Your task to perform on an android device: Show the shopping cart on bestbuy.com. Add razer blackwidow to the cart on bestbuy.com Image 0: 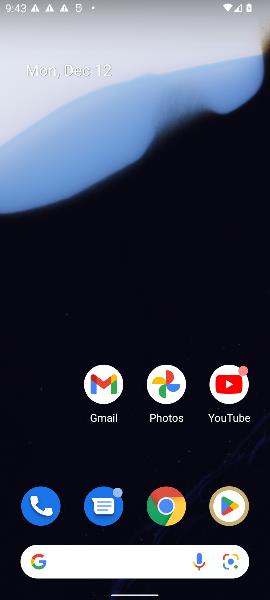
Step 0: click (120, 568)
Your task to perform on an android device: Show the shopping cart on bestbuy.com. Add razer blackwidow to the cart on bestbuy.com Image 1: 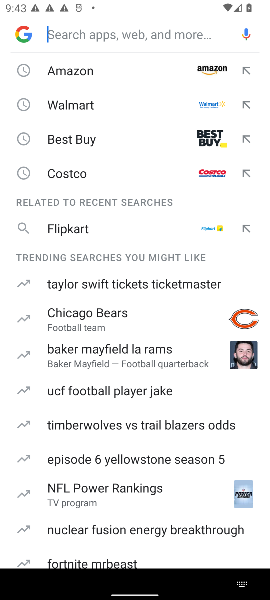
Step 1: click (86, 138)
Your task to perform on an android device: Show the shopping cart on bestbuy.com. Add razer blackwidow to the cart on bestbuy.com Image 2: 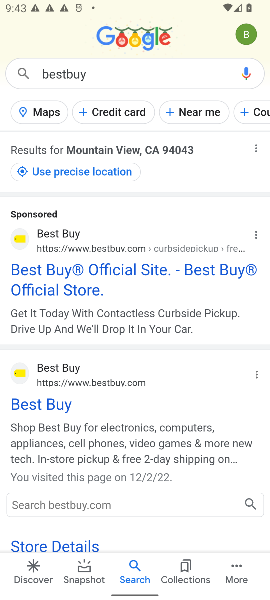
Step 2: click (41, 275)
Your task to perform on an android device: Show the shopping cart on bestbuy.com. Add razer blackwidow to the cart on bestbuy.com Image 3: 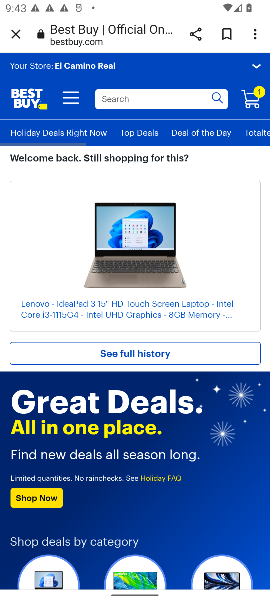
Step 3: click (169, 103)
Your task to perform on an android device: Show the shopping cart on bestbuy.com. Add razer blackwidow to the cart on bestbuy.com Image 4: 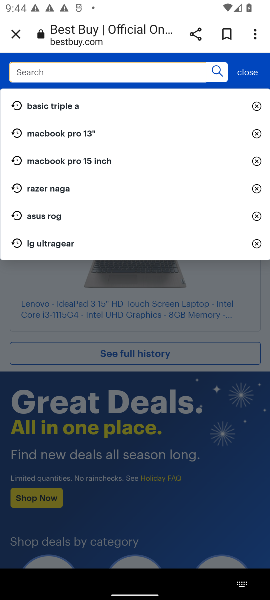
Step 4: type "razer blackwindow"
Your task to perform on an android device: Show the shopping cart on bestbuy.com. Add razer blackwidow to the cart on bestbuy.com Image 5: 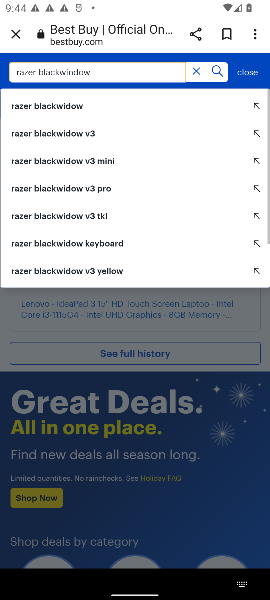
Step 5: click (111, 107)
Your task to perform on an android device: Show the shopping cart on bestbuy.com. Add razer blackwidow to the cart on bestbuy.com Image 6: 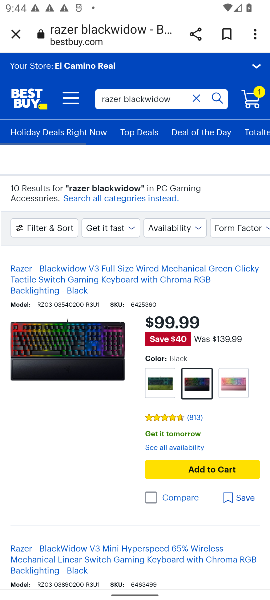
Step 6: click (194, 464)
Your task to perform on an android device: Show the shopping cart on bestbuy.com. Add razer blackwidow to the cart on bestbuy.com Image 7: 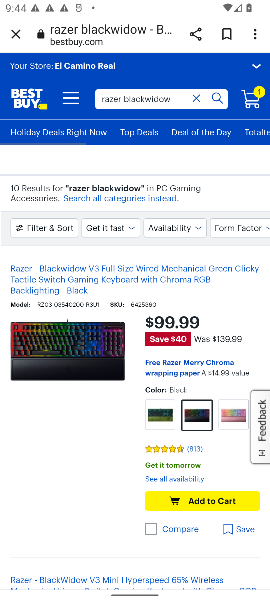
Step 7: task complete